Your task to perform on an android device: turn off picture-in-picture Image 0: 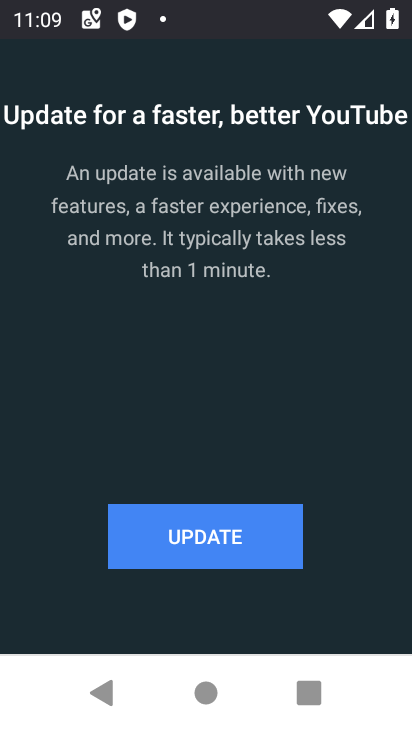
Step 0: press home button
Your task to perform on an android device: turn off picture-in-picture Image 1: 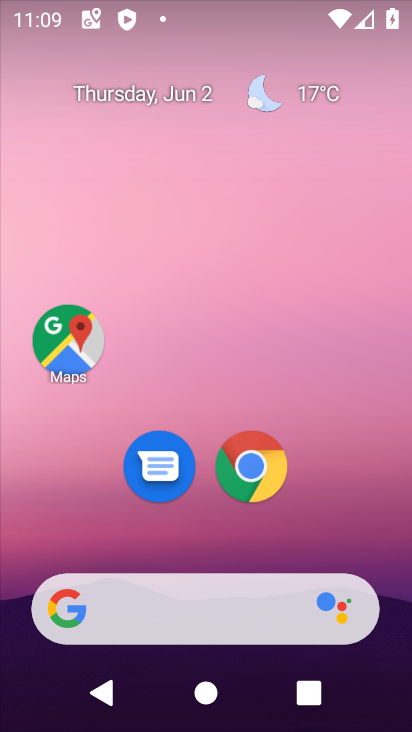
Step 1: drag from (169, 664) to (210, 294)
Your task to perform on an android device: turn off picture-in-picture Image 2: 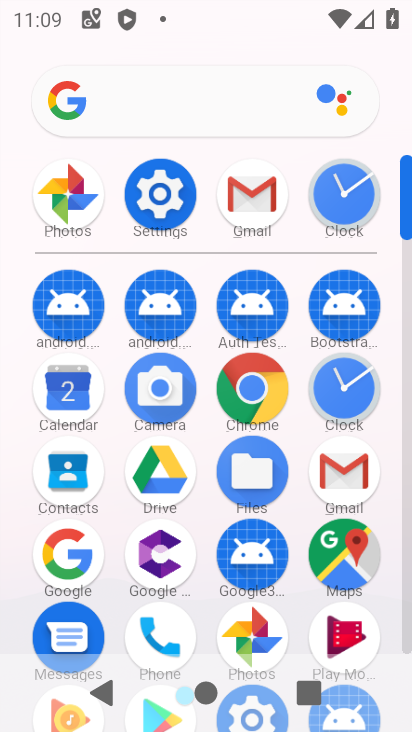
Step 2: click (166, 192)
Your task to perform on an android device: turn off picture-in-picture Image 3: 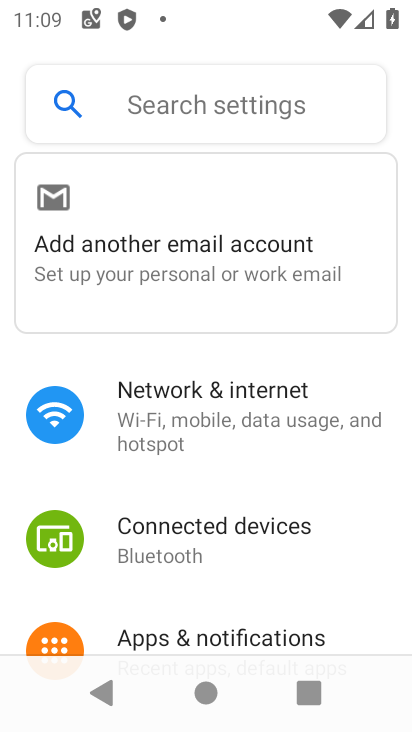
Step 3: click (160, 621)
Your task to perform on an android device: turn off picture-in-picture Image 4: 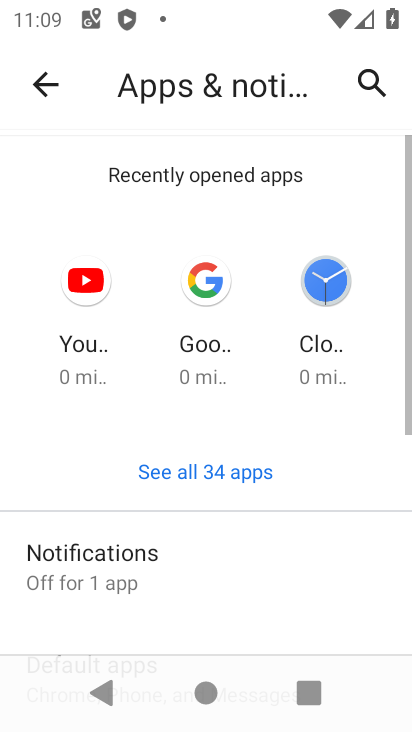
Step 4: drag from (165, 593) to (233, 141)
Your task to perform on an android device: turn off picture-in-picture Image 5: 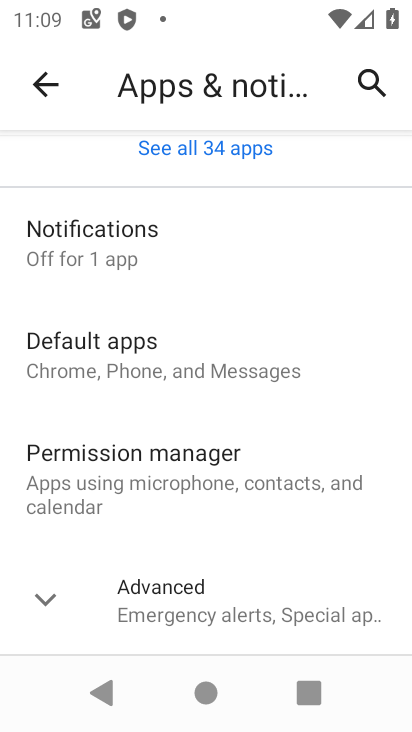
Step 5: click (162, 574)
Your task to perform on an android device: turn off picture-in-picture Image 6: 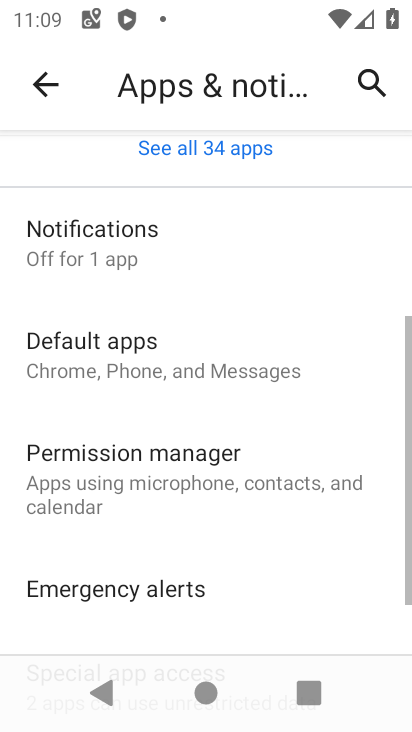
Step 6: drag from (152, 572) to (190, 153)
Your task to perform on an android device: turn off picture-in-picture Image 7: 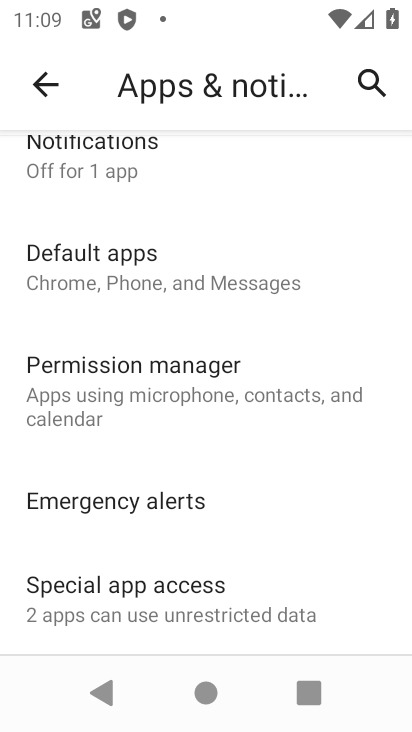
Step 7: click (142, 589)
Your task to perform on an android device: turn off picture-in-picture Image 8: 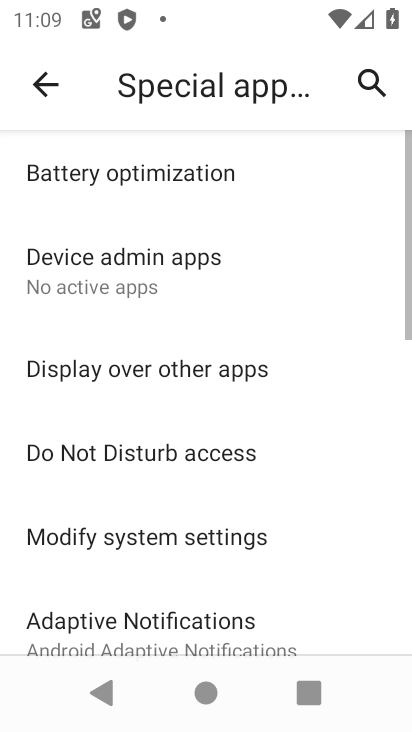
Step 8: drag from (136, 577) to (143, 161)
Your task to perform on an android device: turn off picture-in-picture Image 9: 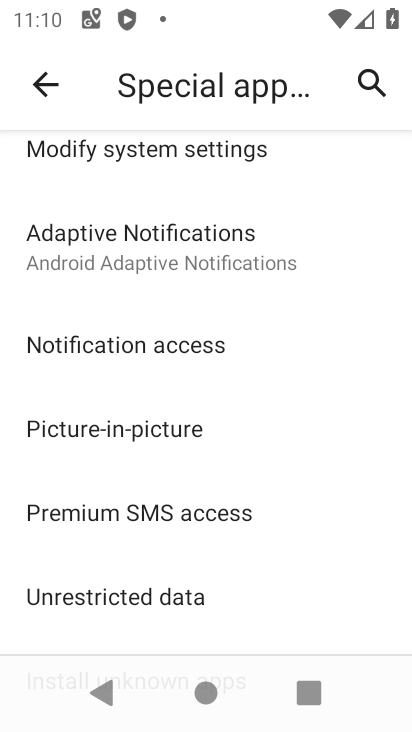
Step 9: click (83, 419)
Your task to perform on an android device: turn off picture-in-picture Image 10: 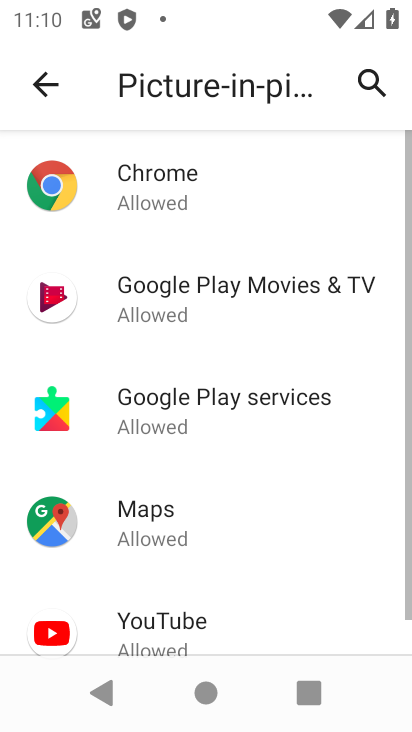
Step 10: click (193, 608)
Your task to perform on an android device: turn off picture-in-picture Image 11: 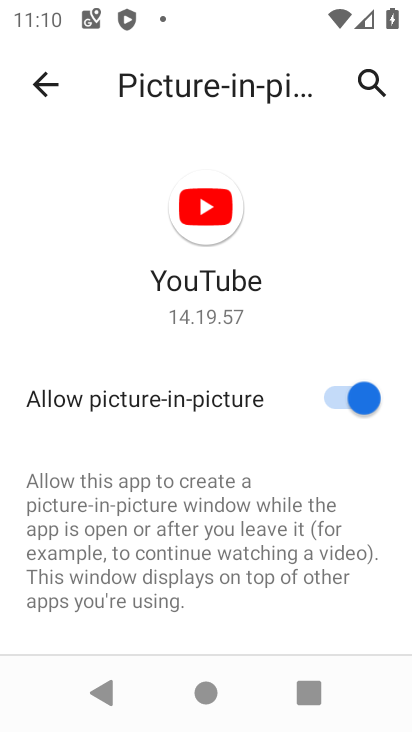
Step 11: click (343, 407)
Your task to perform on an android device: turn off picture-in-picture Image 12: 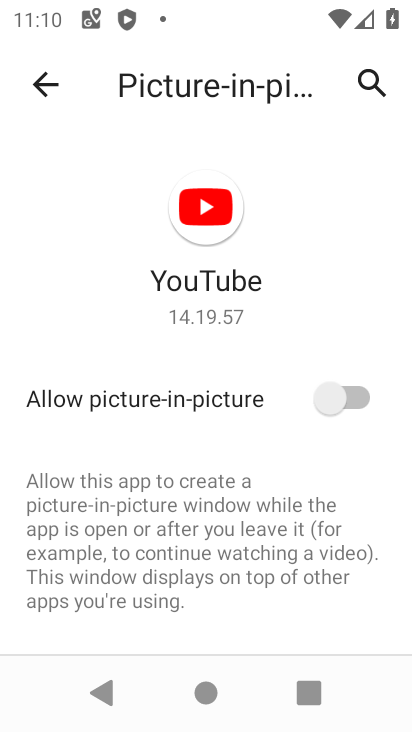
Step 12: task complete